Your task to perform on an android device: change notifications settings Image 0: 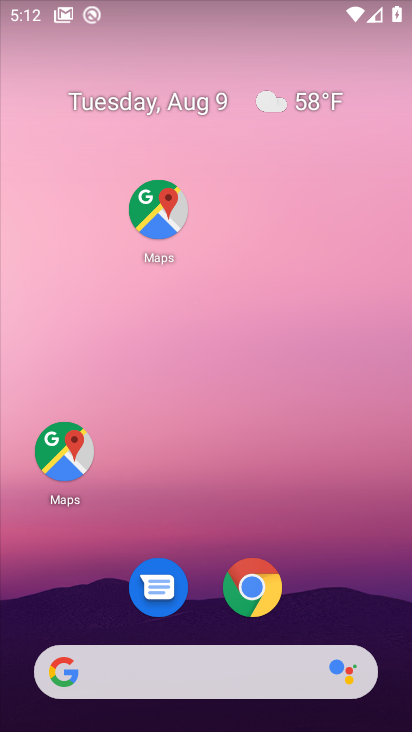
Step 0: drag from (271, 504) to (224, 159)
Your task to perform on an android device: change notifications settings Image 1: 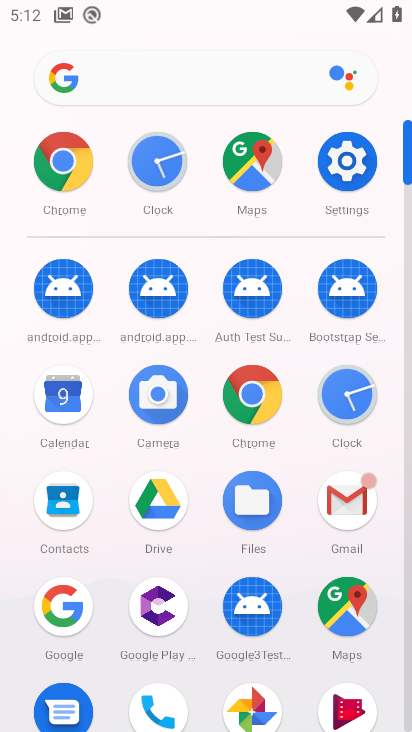
Step 1: drag from (264, 553) to (241, 103)
Your task to perform on an android device: change notifications settings Image 2: 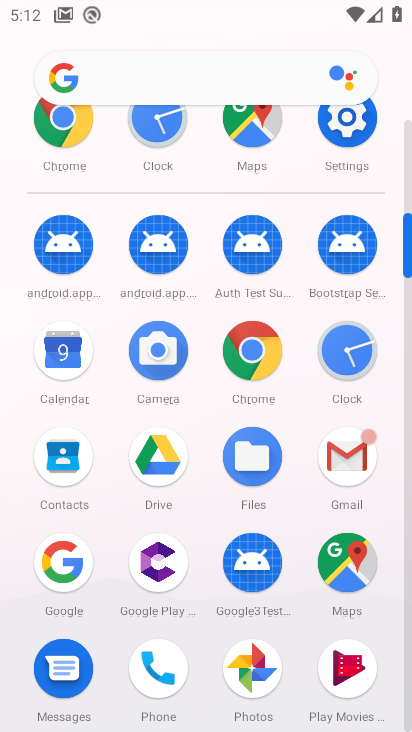
Step 2: click (343, 115)
Your task to perform on an android device: change notifications settings Image 3: 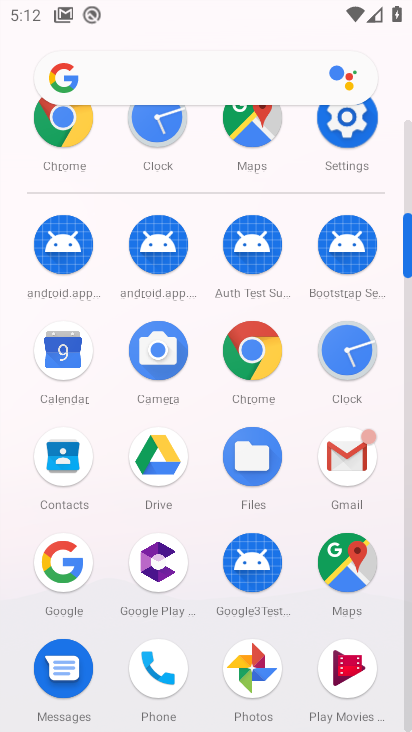
Step 3: click (348, 115)
Your task to perform on an android device: change notifications settings Image 4: 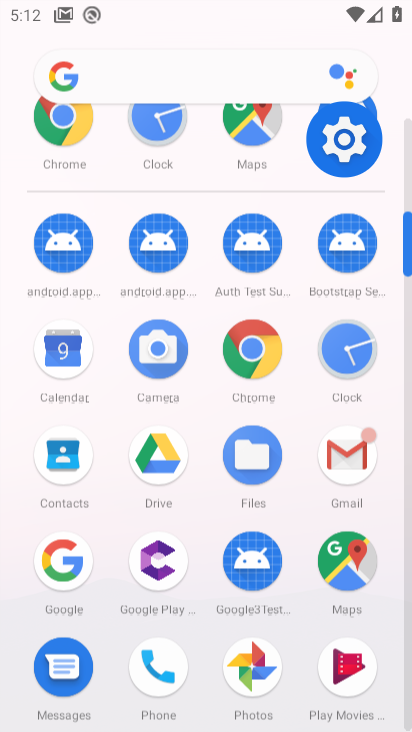
Step 4: click (348, 115)
Your task to perform on an android device: change notifications settings Image 5: 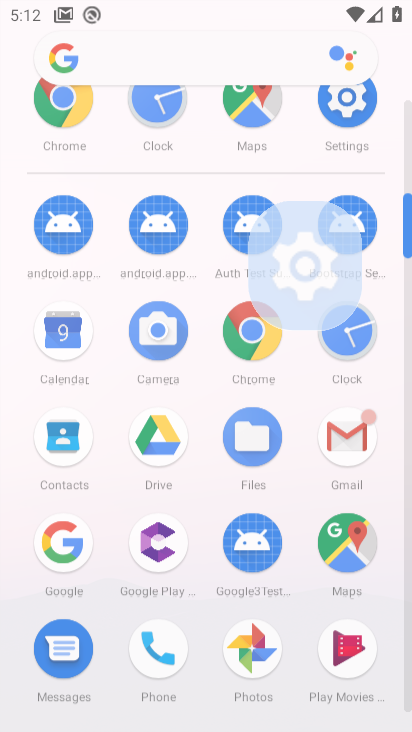
Step 5: click (348, 115)
Your task to perform on an android device: change notifications settings Image 6: 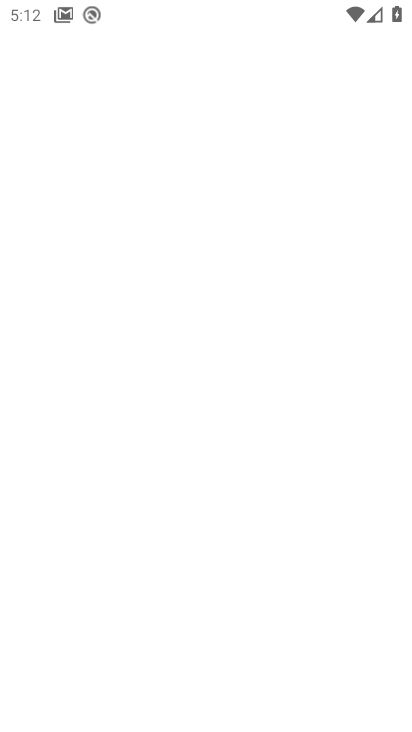
Step 6: click (348, 115)
Your task to perform on an android device: change notifications settings Image 7: 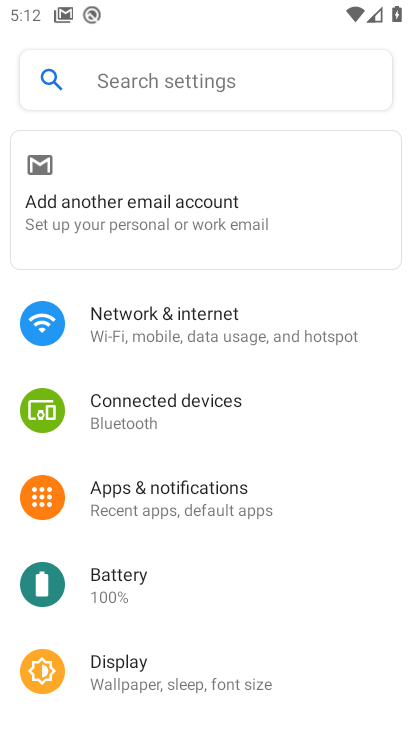
Step 7: click (171, 511)
Your task to perform on an android device: change notifications settings Image 8: 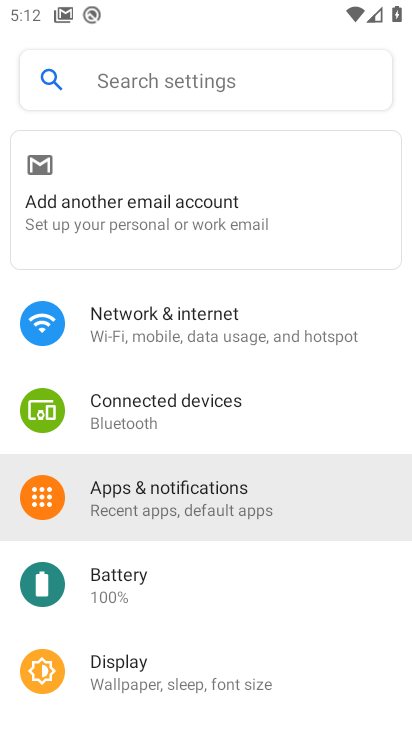
Step 8: click (171, 511)
Your task to perform on an android device: change notifications settings Image 9: 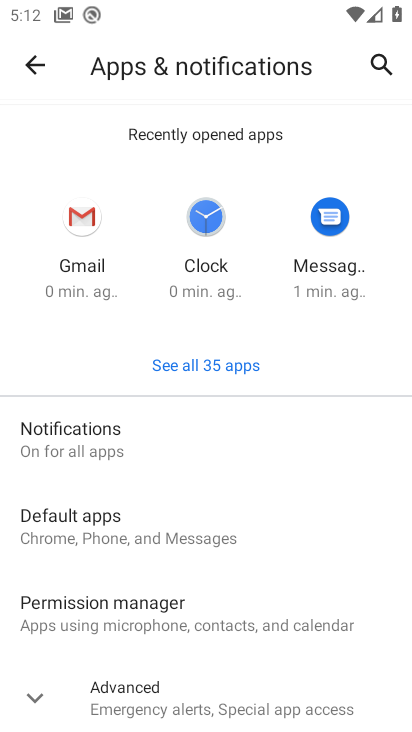
Step 9: click (78, 456)
Your task to perform on an android device: change notifications settings Image 10: 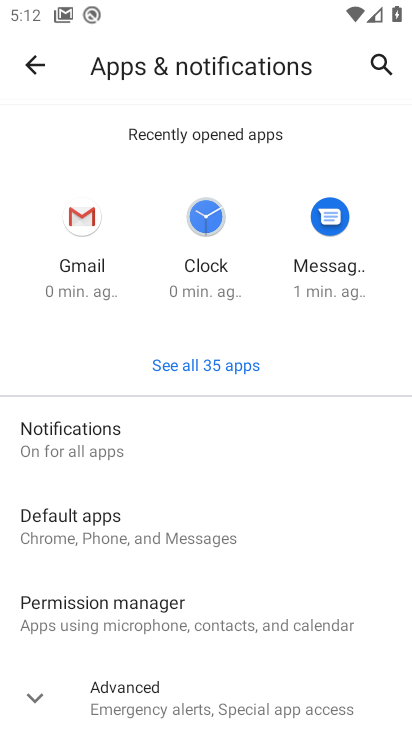
Step 10: click (79, 457)
Your task to perform on an android device: change notifications settings Image 11: 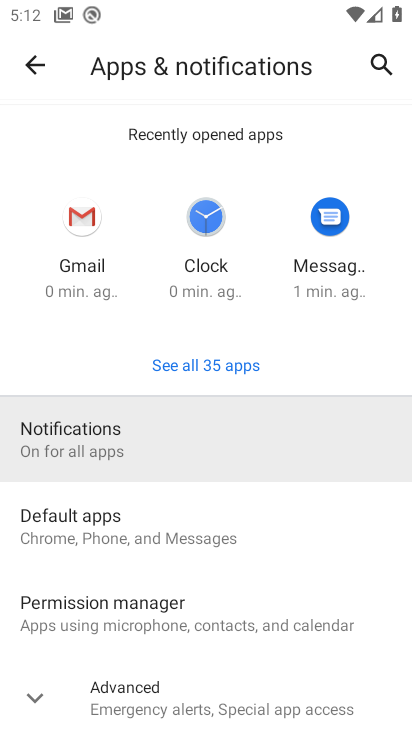
Step 11: click (81, 458)
Your task to perform on an android device: change notifications settings Image 12: 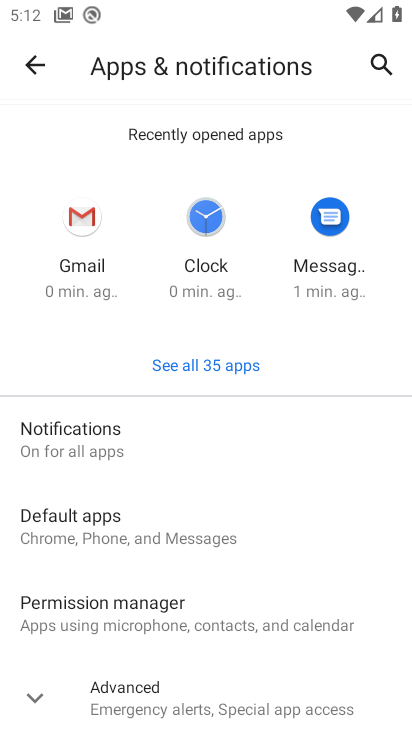
Step 12: click (84, 457)
Your task to perform on an android device: change notifications settings Image 13: 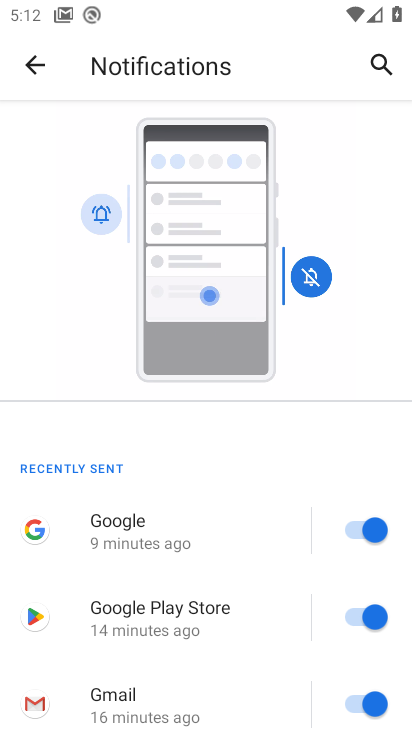
Step 13: drag from (234, 640) to (223, 98)
Your task to perform on an android device: change notifications settings Image 14: 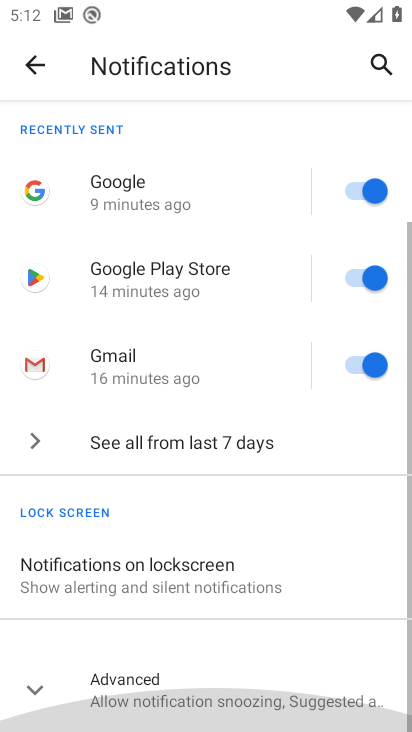
Step 14: drag from (180, 279) to (180, 172)
Your task to perform on an android device: change notifications settings Image 15: 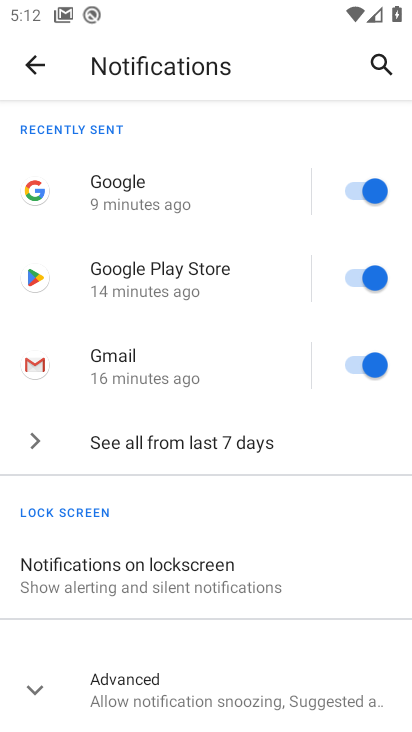
Step 15: click (155, 553)
Your task to perform on an android device: change notifications settings Image 16: 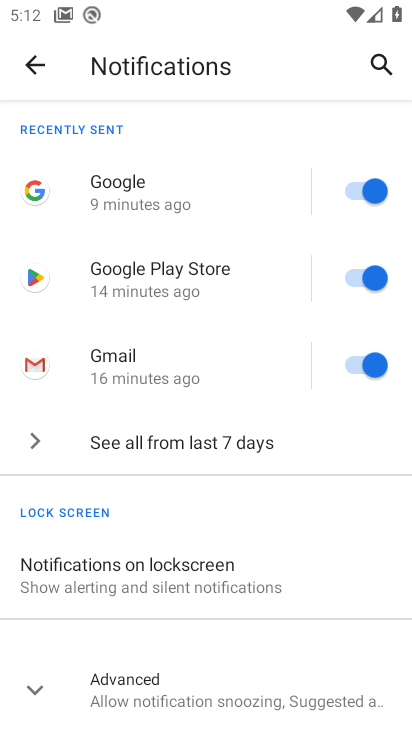
Step 16: click (155, 553)
Your task to perform on an android device: change notifications settings Image 17: 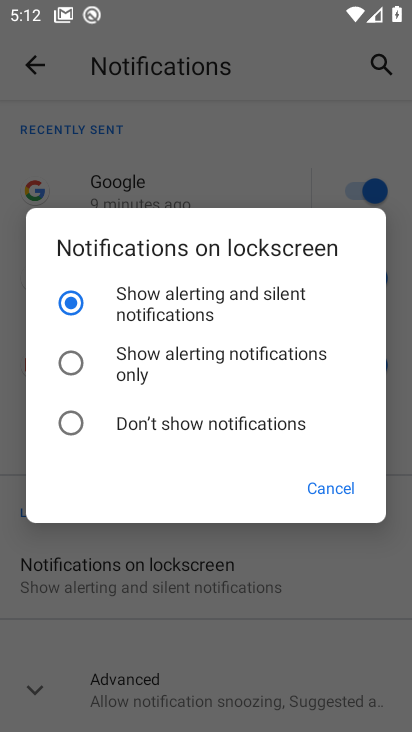
Step 17: click (159, 563)
Your task to perform on an android device: change notifications settings Image 18: 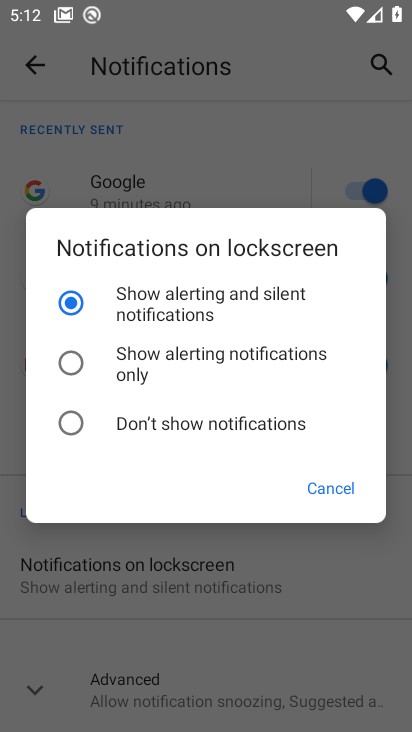
Step 18: click (334, 487)
Your task to perform on an android device: change notifications settings Image 19: 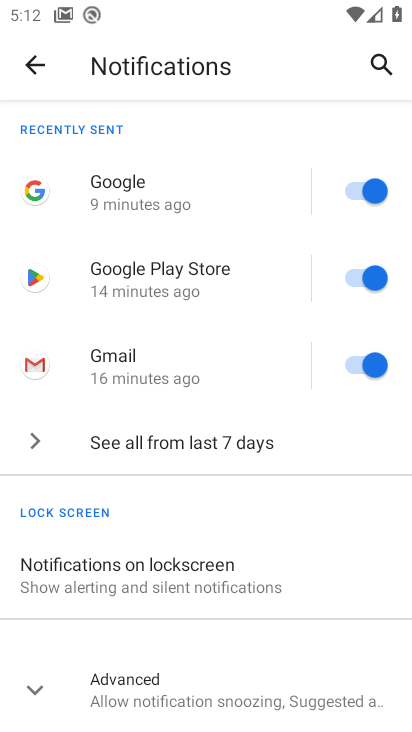
Step 19: click (131, 686)
Your task to perform on an android device: change notifications settings Image 20: 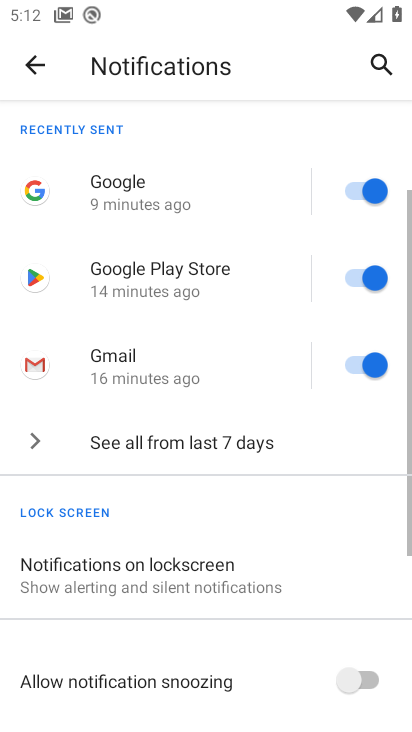
Step 20: click (378, 358)
Your task to perform on an android device: change notifications settings Image 21: 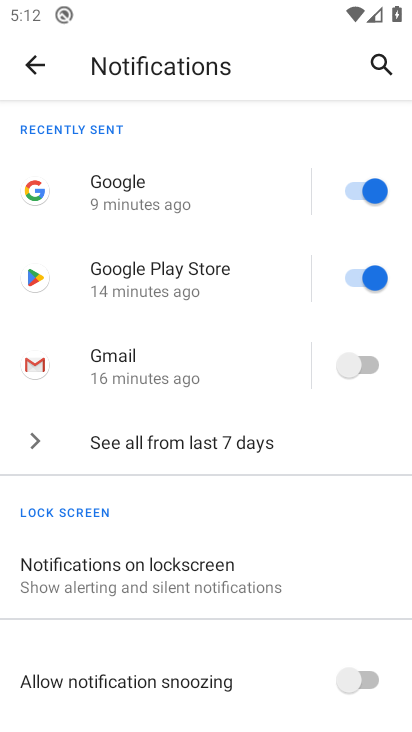
Step 21: click (367, 288)
Your task to perform on an android device: change notifications settings Image 22: 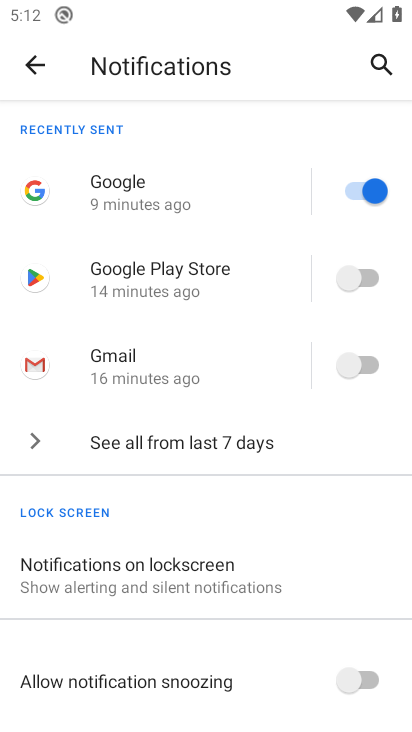
Step 22: click (378, 188)
Your task to perform on an android device: change notifications settings Image 23: 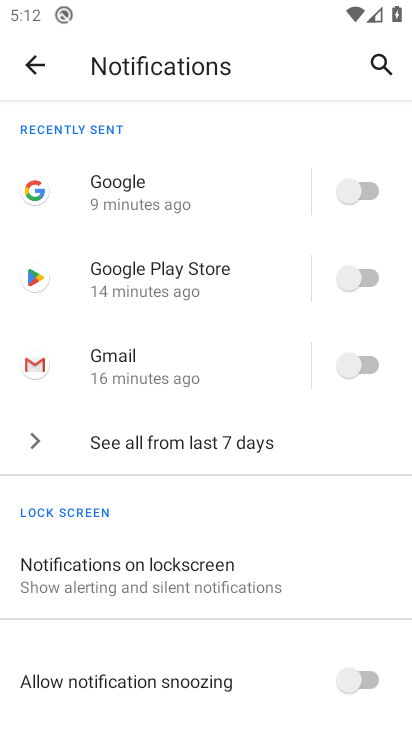
Step 23: task complete